Your task to perform on an android device: open the mobile data screen to see how much data has been used Image 0: 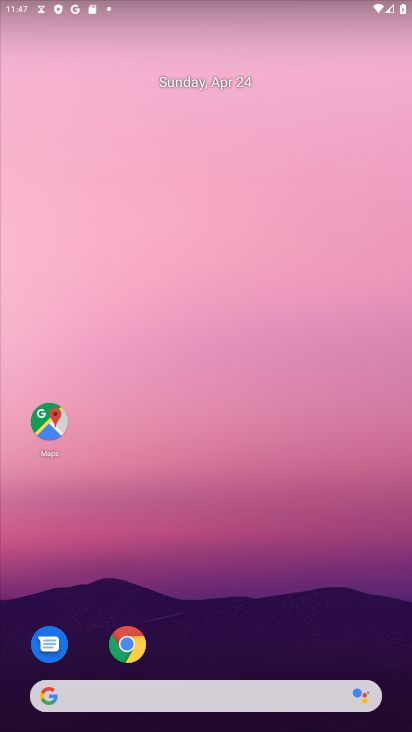
Step 0: drag from (395, 658) to (407, 52)
Your task to perform on an android device: open the mobile data screen to see how much data has been used Image 1: 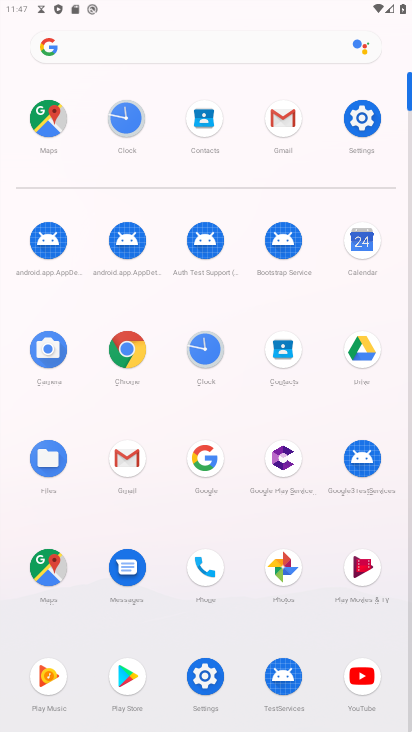
Step 1: click (368, 122)
Your task to perform on an android device: open the mobile data screen to see how much data has been used Image 2: 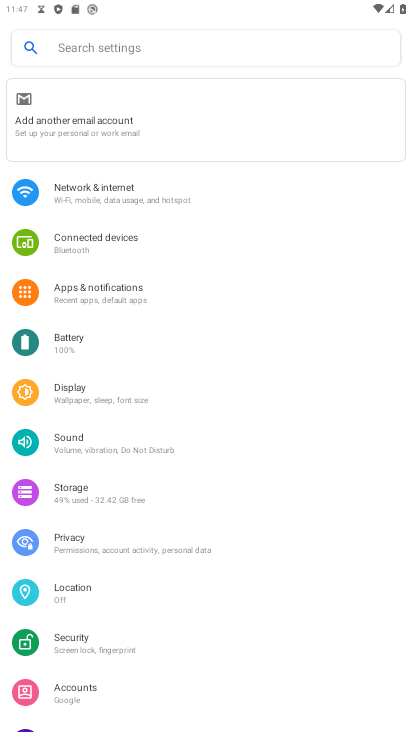
Step 2: click (78, 200)
Your task to perform on an android device: open the mobile data screen to see how much data has been used Image 3: 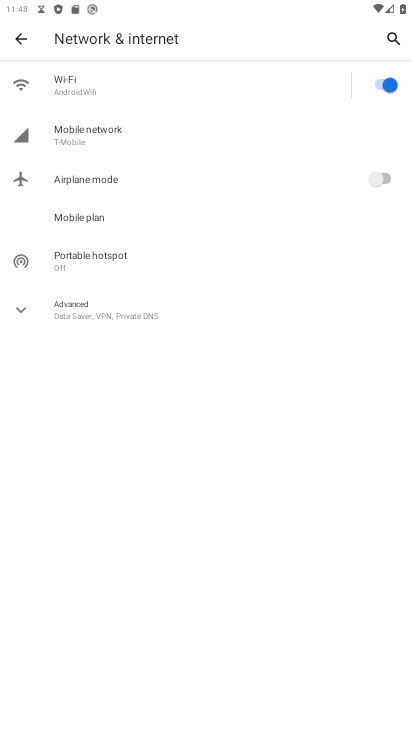
Step 3: click (74, 138)
Your task to perform on an android device: open the mobile data screen to see how much data has been used Image 4: 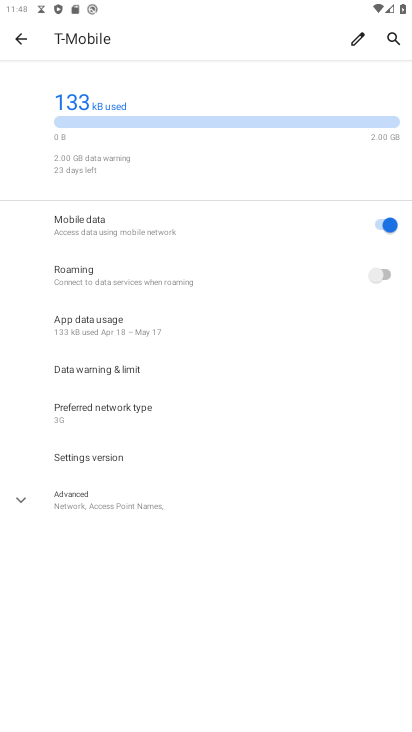
Step 4: click (93, 324)
Your task to perform on an android device: open the mobile data screen to see how much data has been used Image 5: 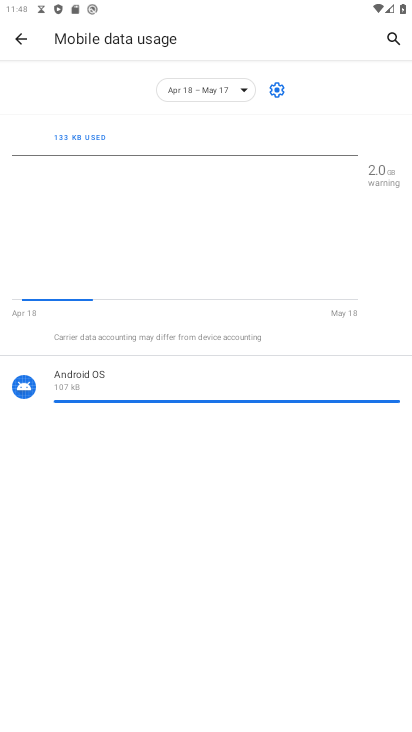
Step 5: task complete